Your task to perform on an android device: toggle sleep mode Image 0: 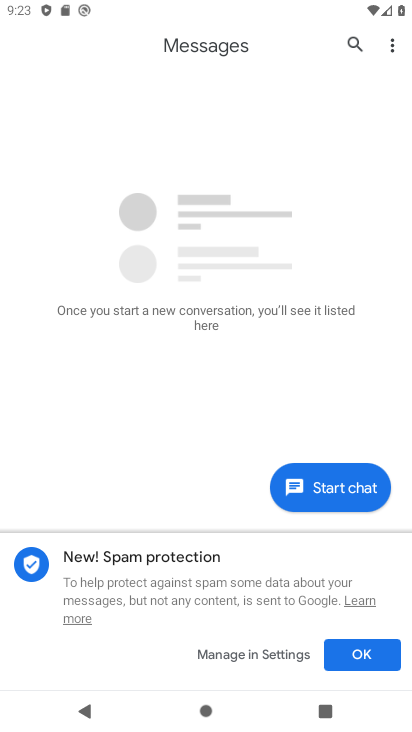
Step 0: press home button
Your task to perform on an android device: toggle sleep mode Image 1: 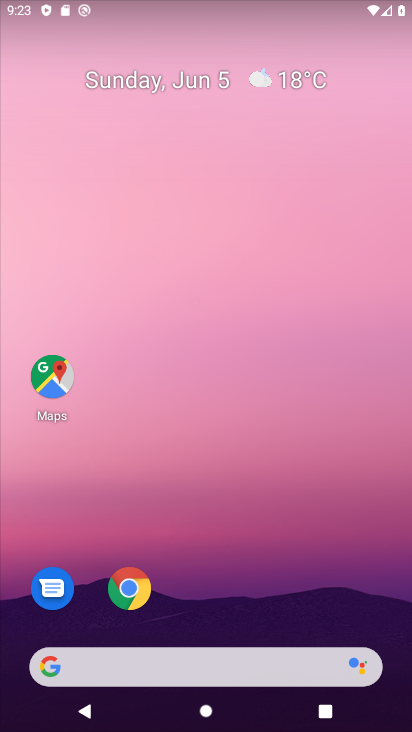
Step 1: drag from (350, 579) to (325, 194)
Your task to perform on an android device: toggle sleep mode Image 2: 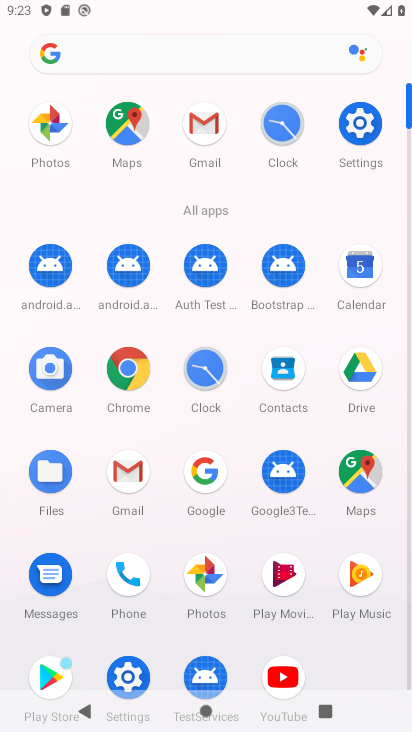
Step 2: click (352, 131)
Your task to perform on an android device: toggle sleep mode Image 3: 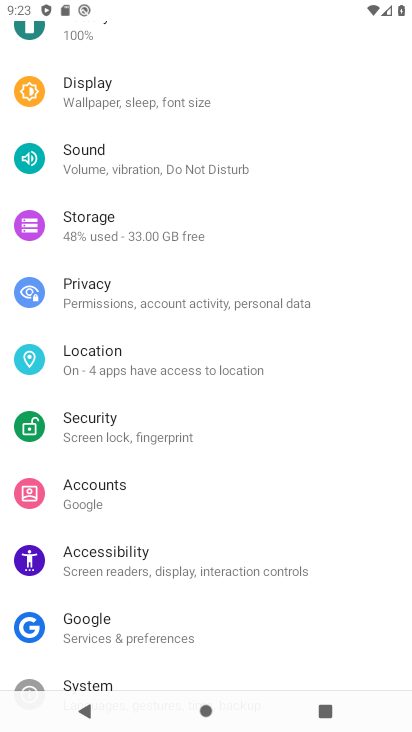
Step 3: drag from (349, 171) to (345, 254)
Your task to perform on an android device: toggle sleep mode Image 4: 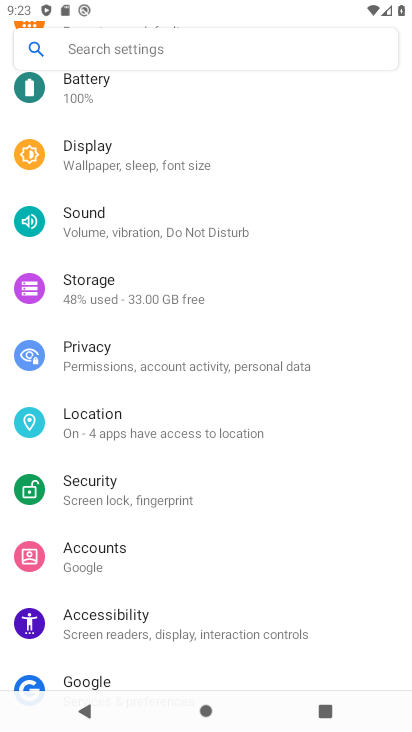
Step 4: drag from (316, 219) to (317, 308)
Your task to perform on an android device: toggle sleep mode Image 5: 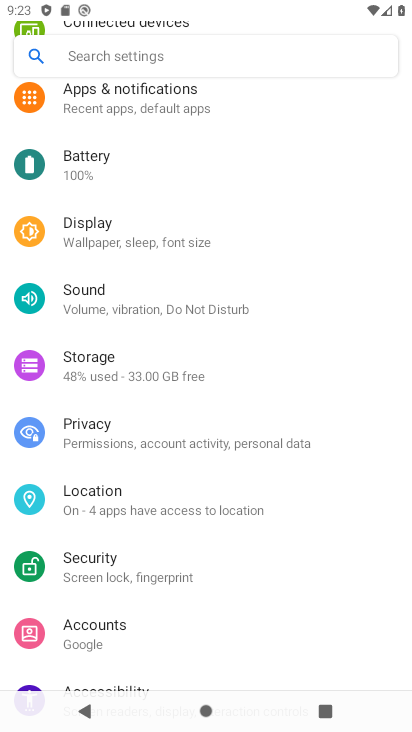
Step 5: drag from (321, 131) to (312, 290)
Your task to perform on an android device: toggle sleep mode Image 6: 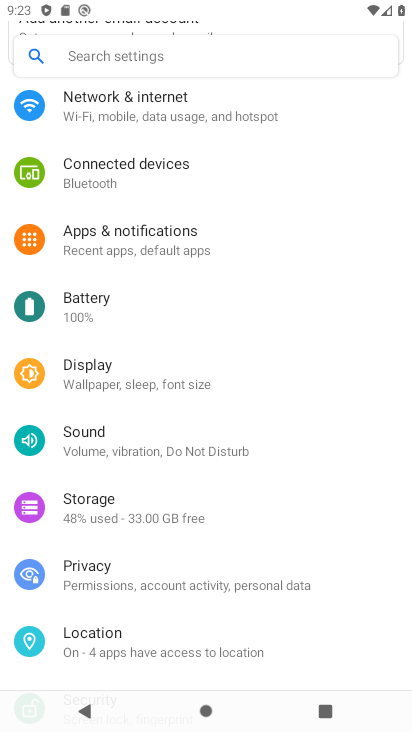
Step 6: drag from (309, 186) to (321, 322)
Your task to perform on an android device: toggle sleep mode Image 7: 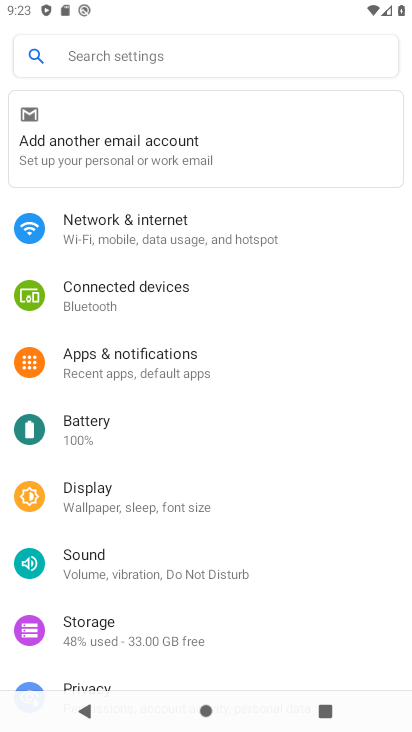
Step 7: drag from (325, 190) to (320, 317)
Your task to perform on an android device: toggle sleep mode Image 8: 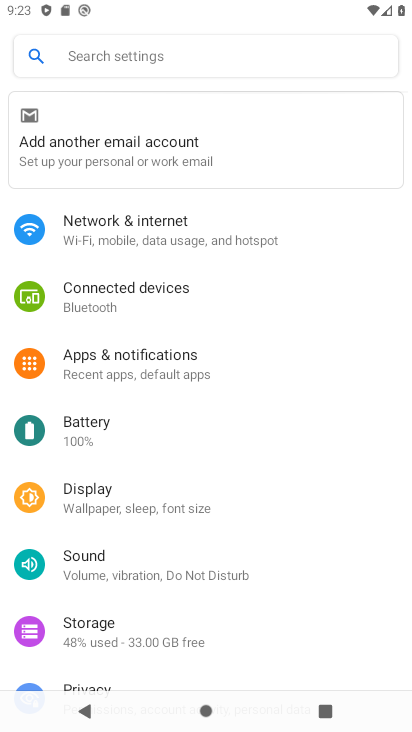
Step 8: drag from (332, 409) to (324, 312)
Your task to perform on an android device: toggle sleep mode Image 9: 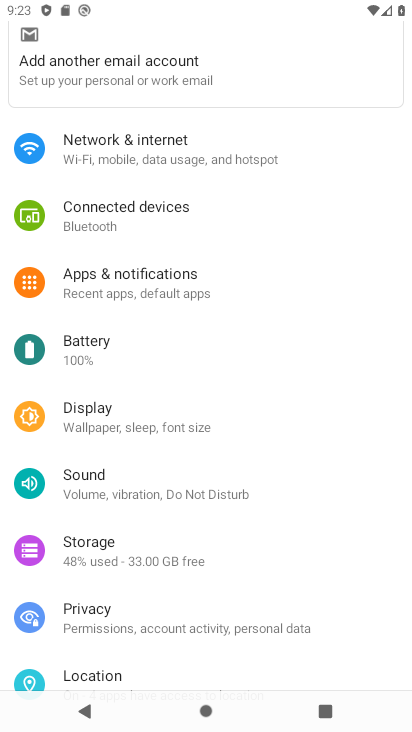
Step 9: click (172, 426)
Your task to perform on an android device: toggle sleep mode Image 10: 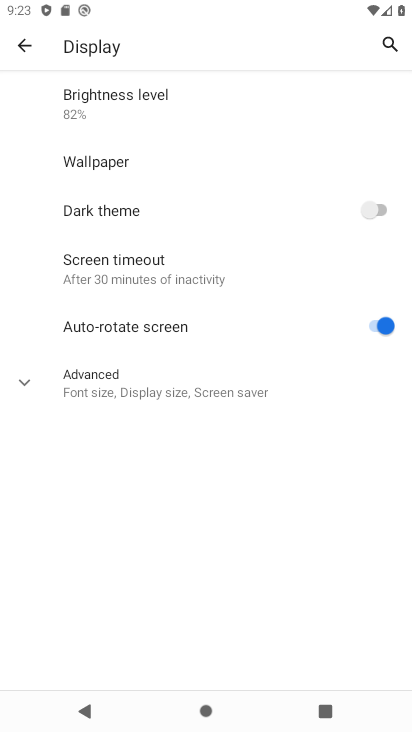
Step 10: click (204, 378)
Your task to perform on an android device: toggle sleep mode Image 11: 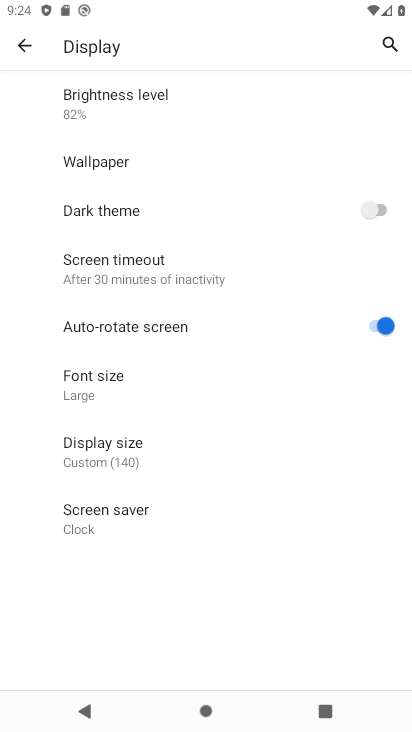
Step 11: task complete